Your task to perform on an android device: When is my next meeting? Image 0: 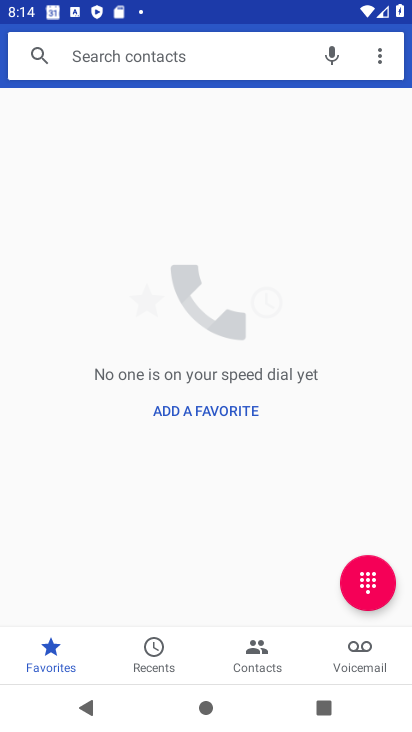
Step 0: press home button
Your task to perform on an android device: When is my next meeting? Image 1: 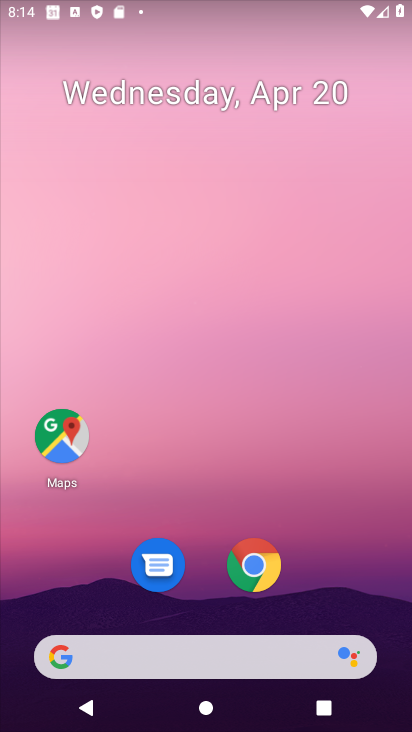
Step 1: drag from (312, 560) to (217, 100)
Your task to perform on an android device: When is my next meeting? Image 2: 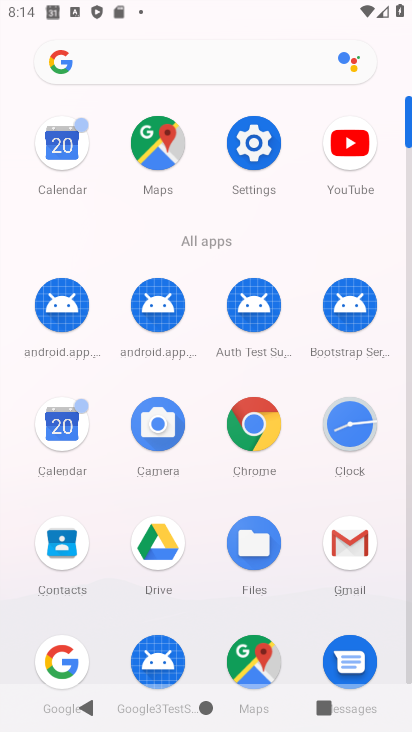
Step 2: click (59, 147)
Your task to perform on an android device: When is my next meeting? Image 3: 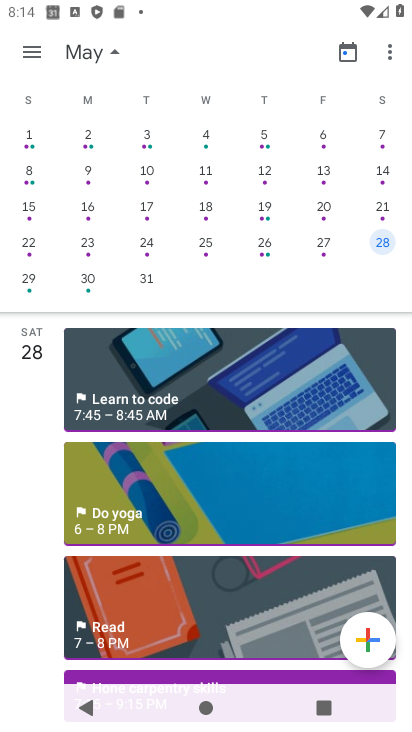
Step 3: click (25, 295)
Your task to perform on an android device: When is my next meeting? Image 4: 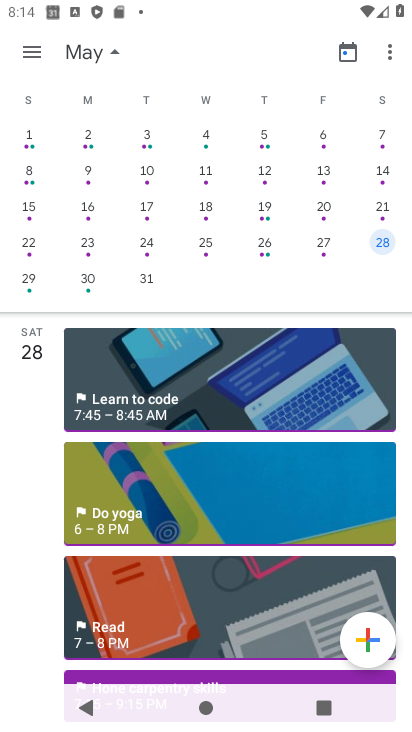
Step 4: click (24, 282)
Your task to perform on an android device: When is my next meeting? Image 5: 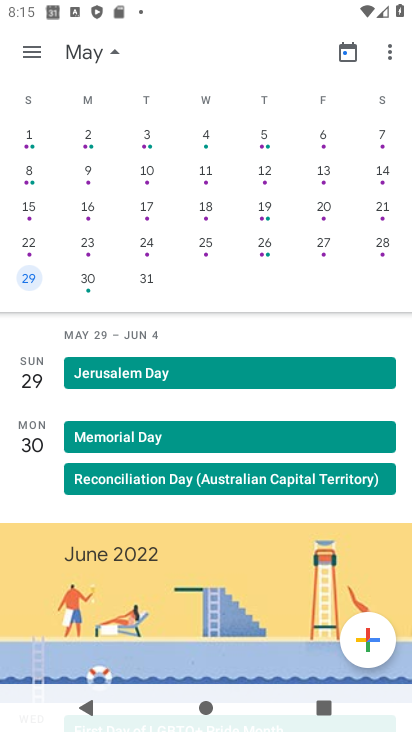
Step 5: task complete